Your task to perform on an android device: Go to internet settings Image 0: 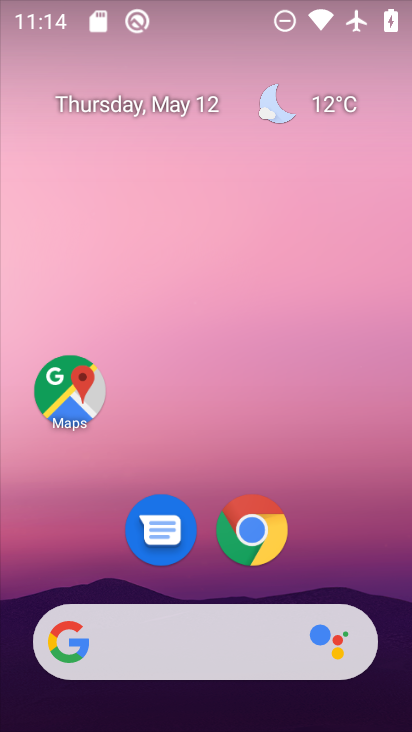
Step 0: drag from (156, 674) to (344, 147)
Your task to perform on an android device: Go to internet settings Image 1: 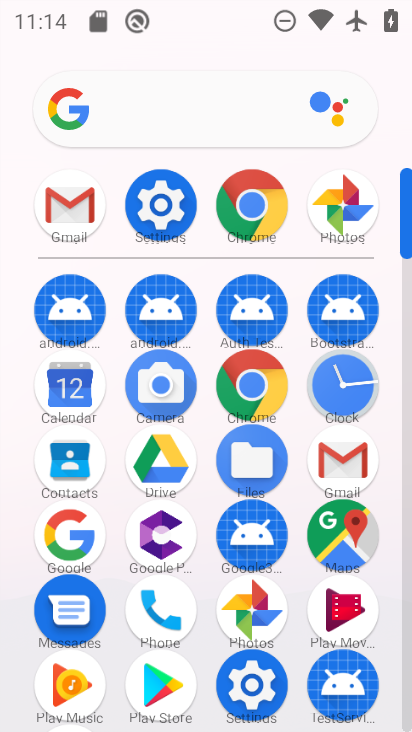
Step 1: click (168, 216)
Your task to perform on an android device: Go to internet settings Image 2: 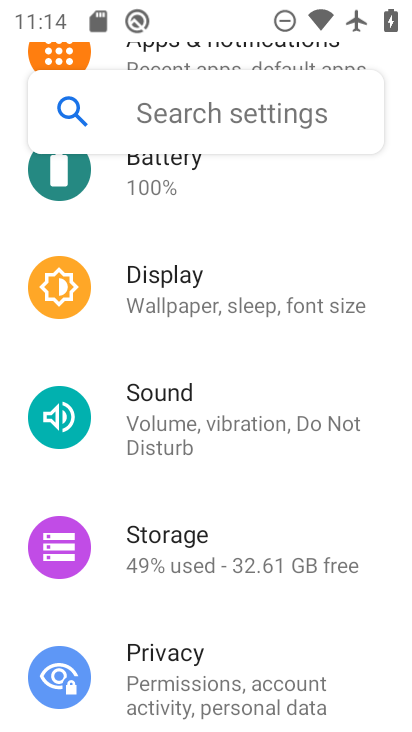
Step 2: drag from (238, 200) to (95, 578)
Your task to perform on an android device: Go to internet settings Image 3: 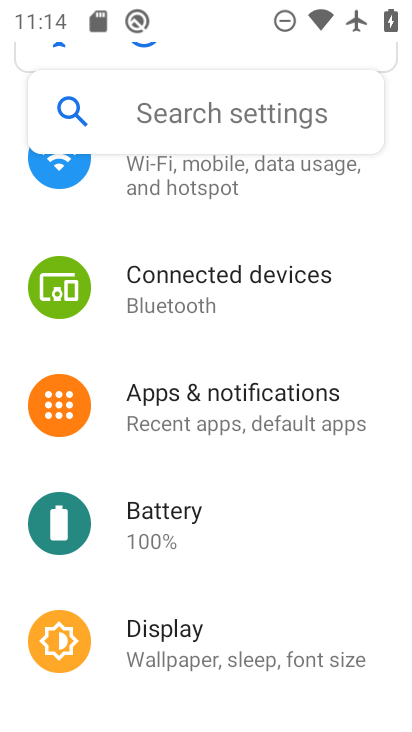
Step 3: drag from (289, 234) to (165, 606)
Your task to perform on an android device: Go to internet settings Image 4: 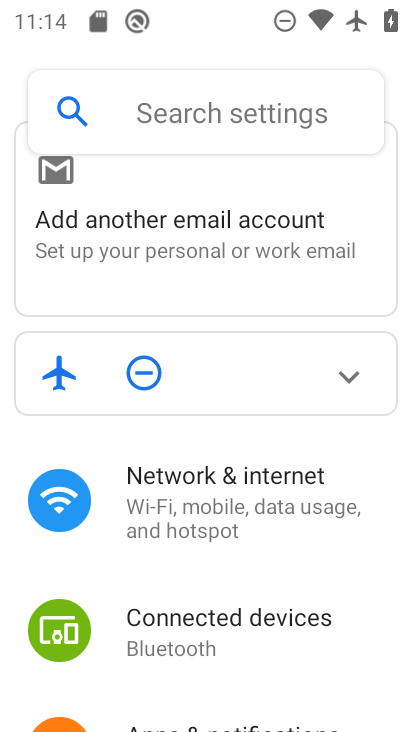
Step 4: click (267, 489)
Your task to perform on an android device: Go to internet settings Image 5: 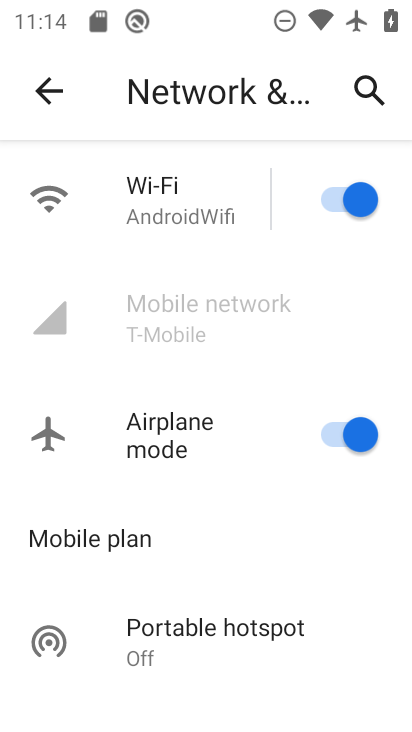
Step 5: task complete